Your task to perform on an android device: turn off notifications settings in the gmail app Image 0: 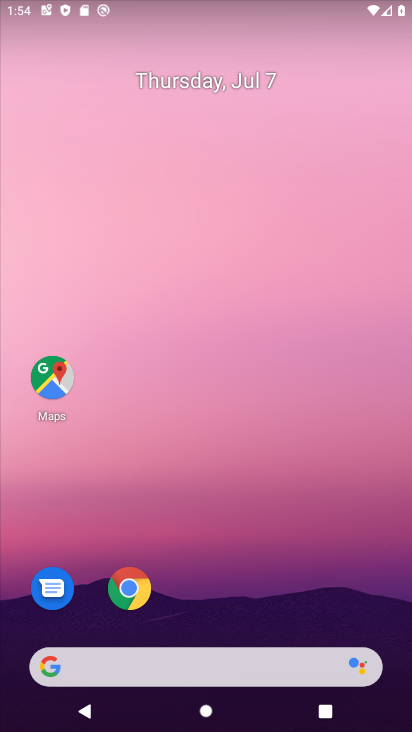
Step 0: drag from (225, 559) to (233, 28)
Your task to perform on an android device: turn off notifications settings in the gmail app Image 1: 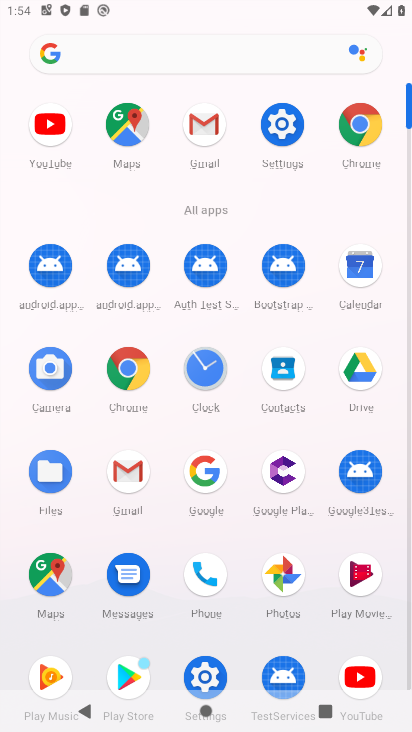
Step 1: click (192, 121)
Your task to perform on an android device: turn off notifications settings in the gmail app Image 2: 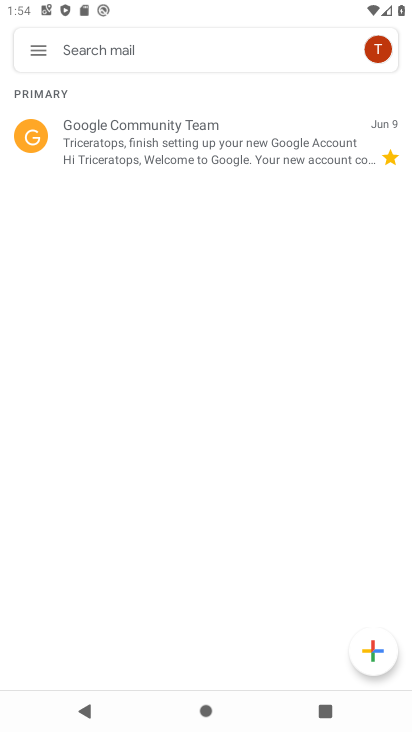
Step 2: click (49, 44)
Your task to perform on an android device: turn off notifications settings in the gmail app Image 3: 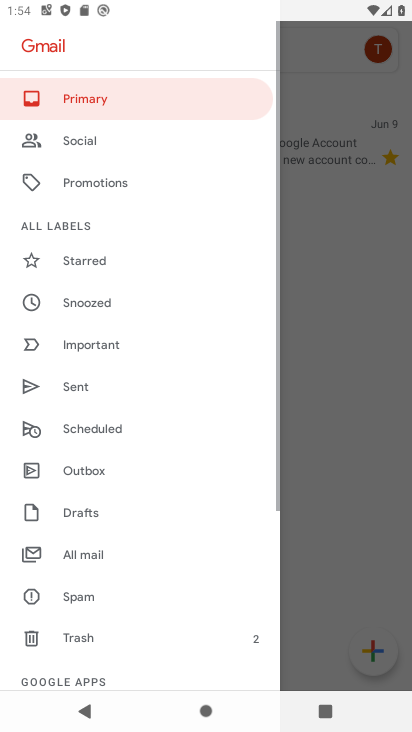
Step 3: drag from (89, 648) to (140, 253)
Your task to perform on an android device: turn off notifications settings in the gmail app Image 4: 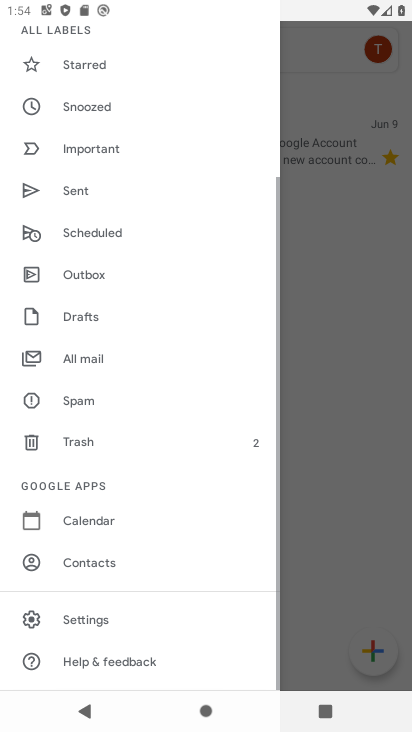
Step 4: click (95, 623)
Your task to perform on an android device: turn off notifications settings in the gmail app Image 5: 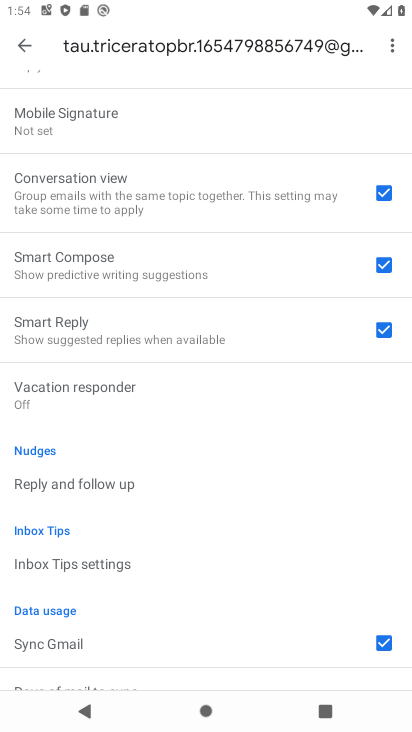
Step 5: drag from (110, 117) to (183, 723)
Your task to perform on an android device: turn off notifications settings in the gmail app Image 6: 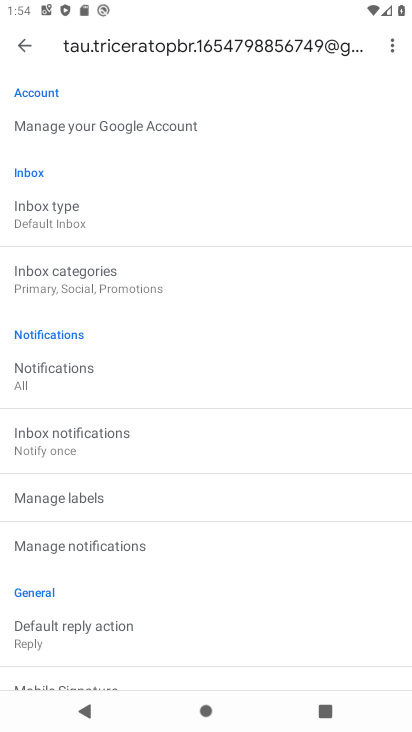
Step 6: click (74, 384)
Your task to perform on an android device: turn off notifications settings in the gmail app Image 7: 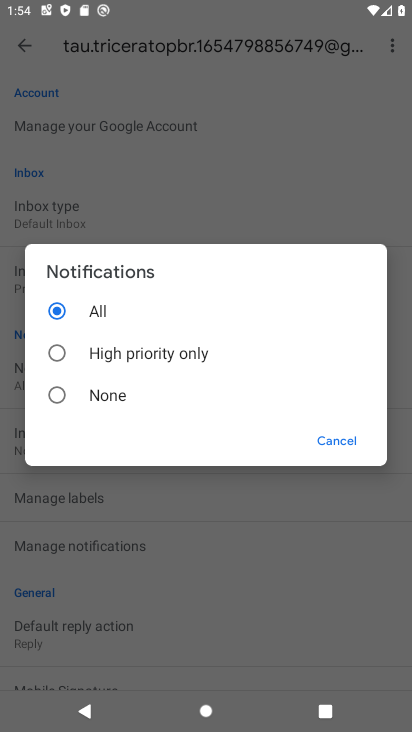
Step 7: click (357, 435)
Your task to perform on an android device: turn off notifications settings in the gmail app Image 8: 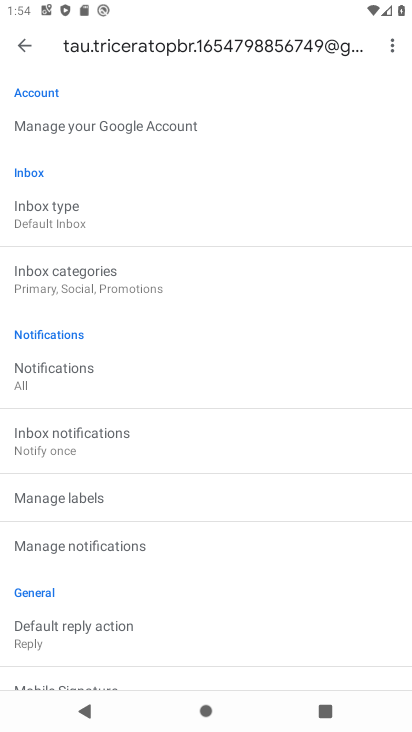
Step 8: drag from (163, 215) to (147, 729)
Your task to perform on an android device: turn off notifications settings in the gmail app Image 9: 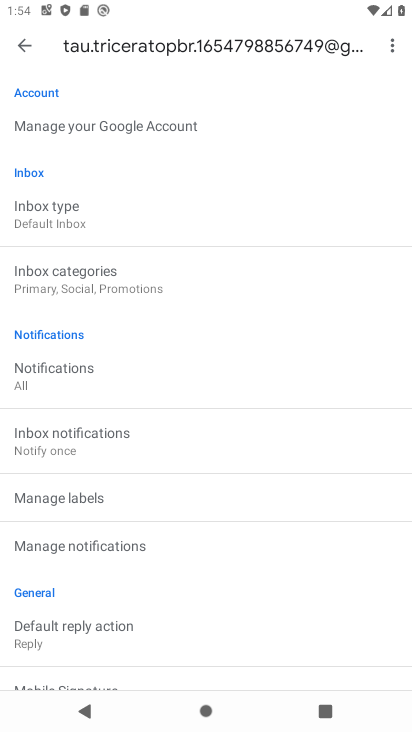
Step 9: click (112, 564)
Your task to perform on an android device: turn off notifications settings in the gmail app Image 10: 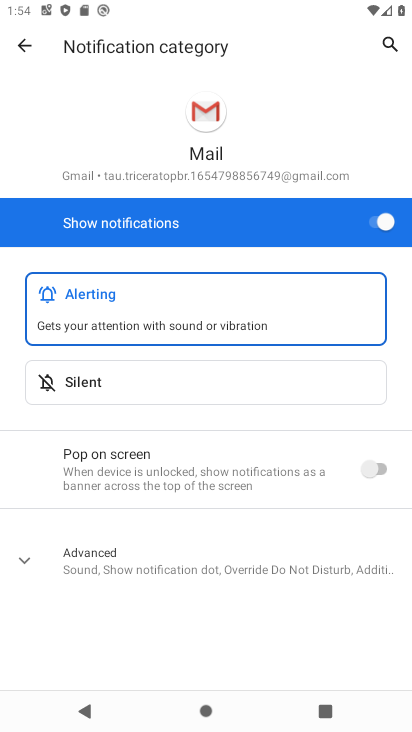
Step 10: click (379, 221)
Your task to perform on an android device: turn off notifications settings in the gmail app Image 11: 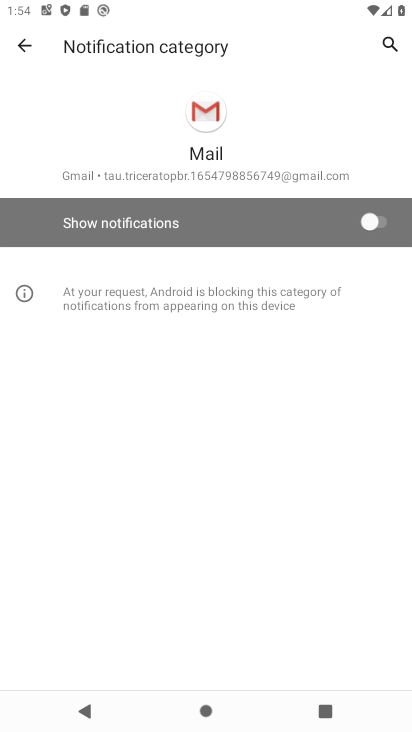
Step 11: task complete